Your task to perform on an android device: open wifi settings Image 0: 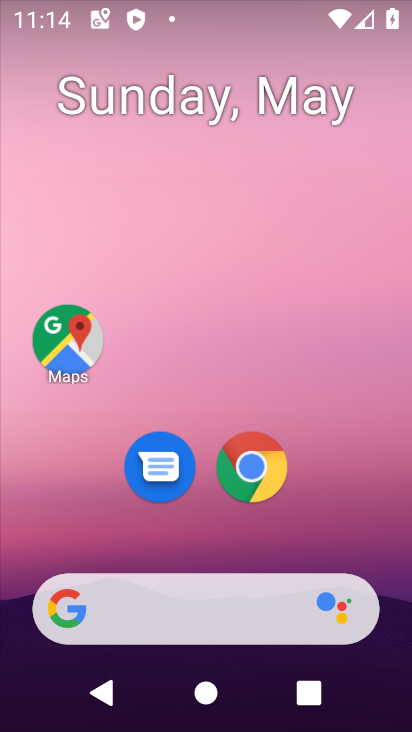
Step 0: drag from (390, 558) to (411, 438)
Your task to perform on an android device: open wifi settings Image 1: 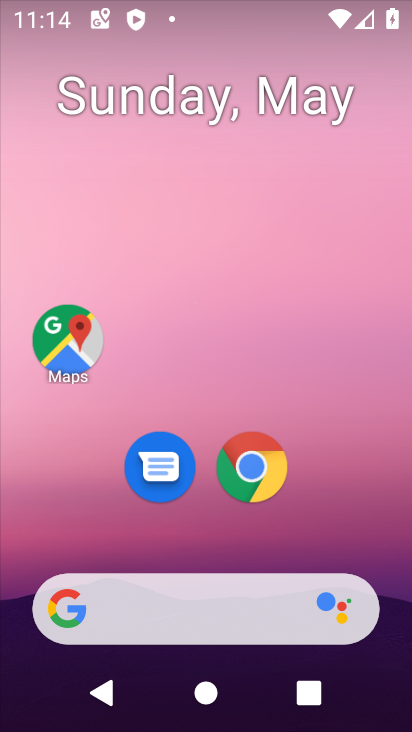
Step 1: drag from (353, 545) to (382, 6)
Your task to perform on an android device: open wifi settings Image 2: 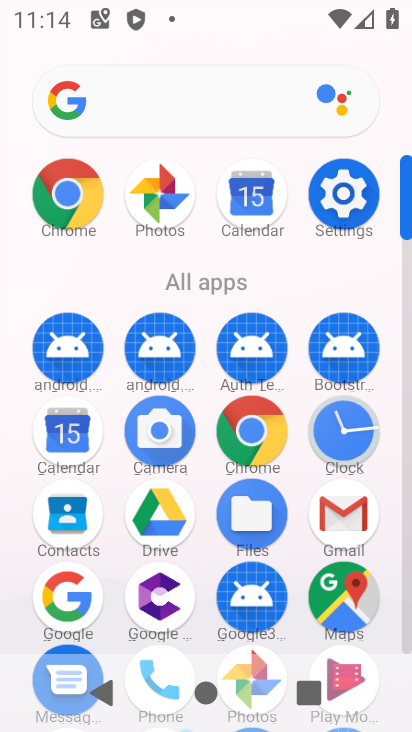
Step 2: click (348, 186)
Your task to perform on an android device: open wifi settings Image 3: 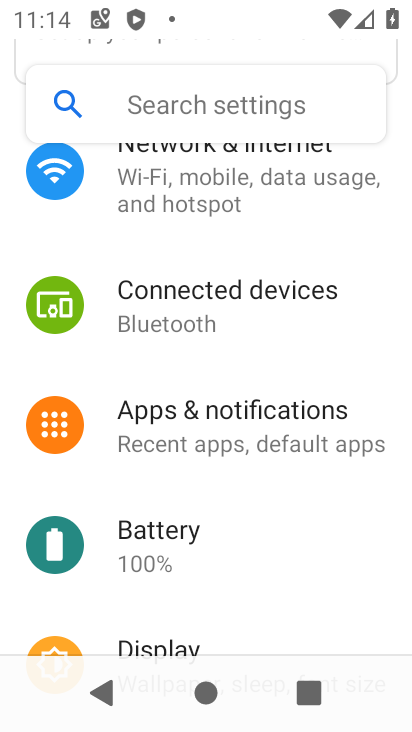
Step 3: click (192, 169)
Your task to perform on an android device: open wifi settings Image 4: 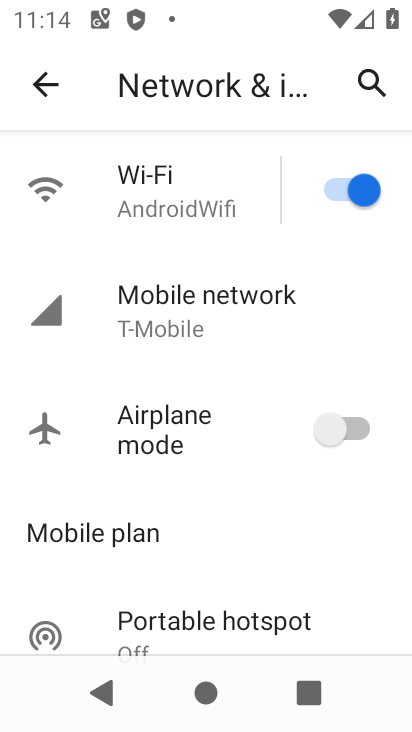
Step 4: click (104, 202)
Your task to perform on an android device: open wifi settings Image 5: 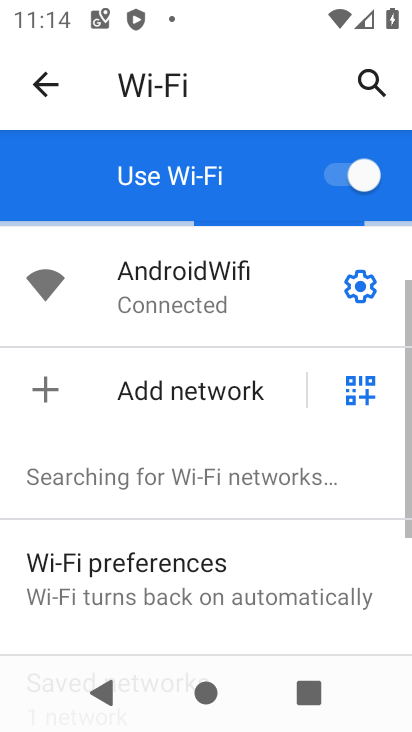
Step 5: task complete